Your task to perform on an android device: Go to ESPN.com Image 0: 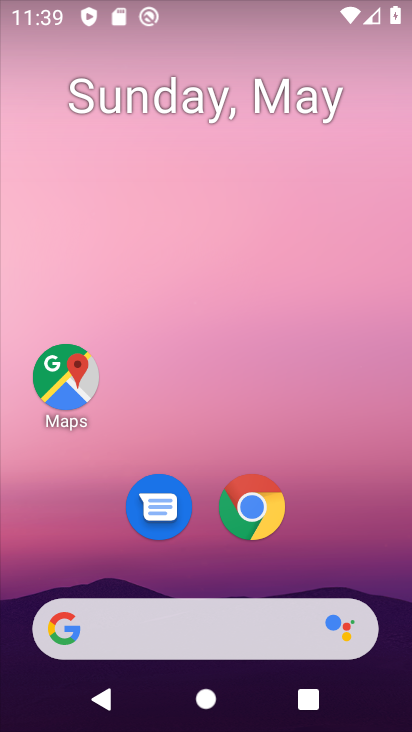
Step 0: click (247, 513)
Your task to perform on an android device: Go to ESPN.com Image 1: 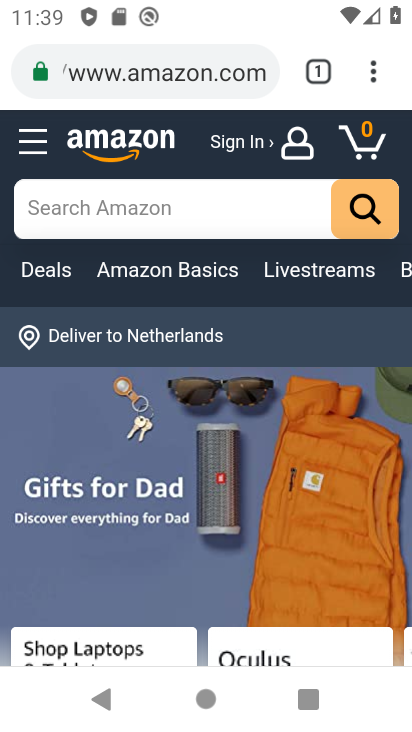
Step 1: click (373, 77)
Your task to perform on an android device: Go to ESPN.com Image 2: 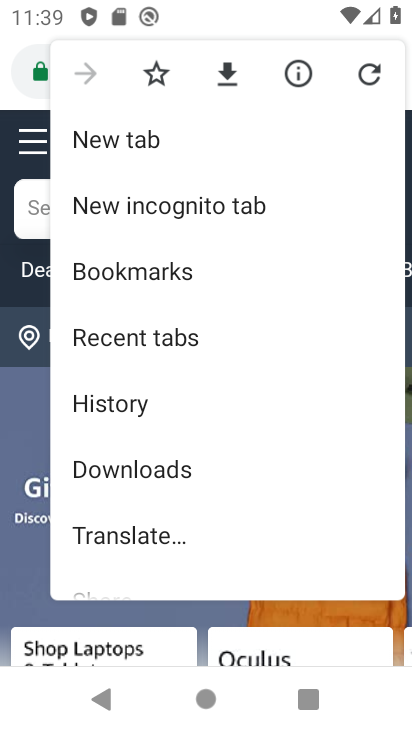
Step 2: click (127, 135)
Your task to perform on an android device: Go to ESPN.com Image 3: 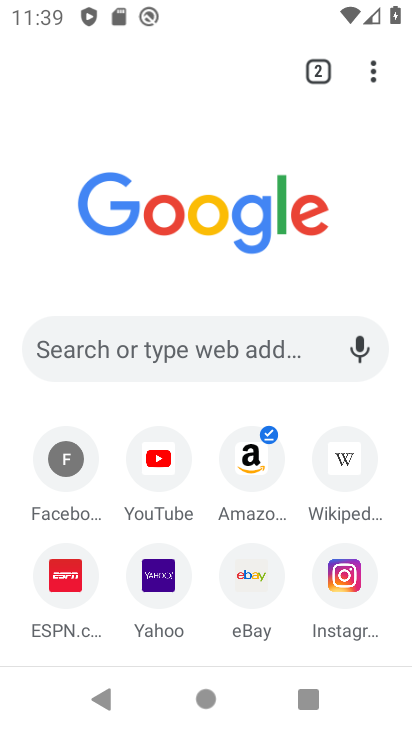
Step 3: click (67, 578)
Your task to perform on an android device: Go to ESPN.com Image 4: 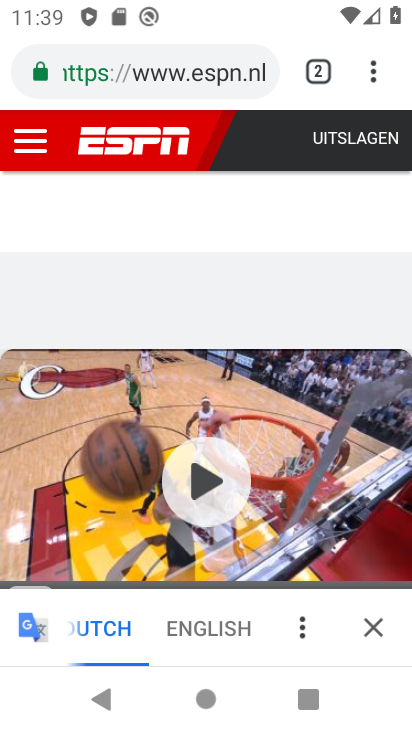
Step 4: task complete